Your task to perform on an android device: Clear the cart on target.com. Add "logitech g pro" to the cart on target.com Image 0: 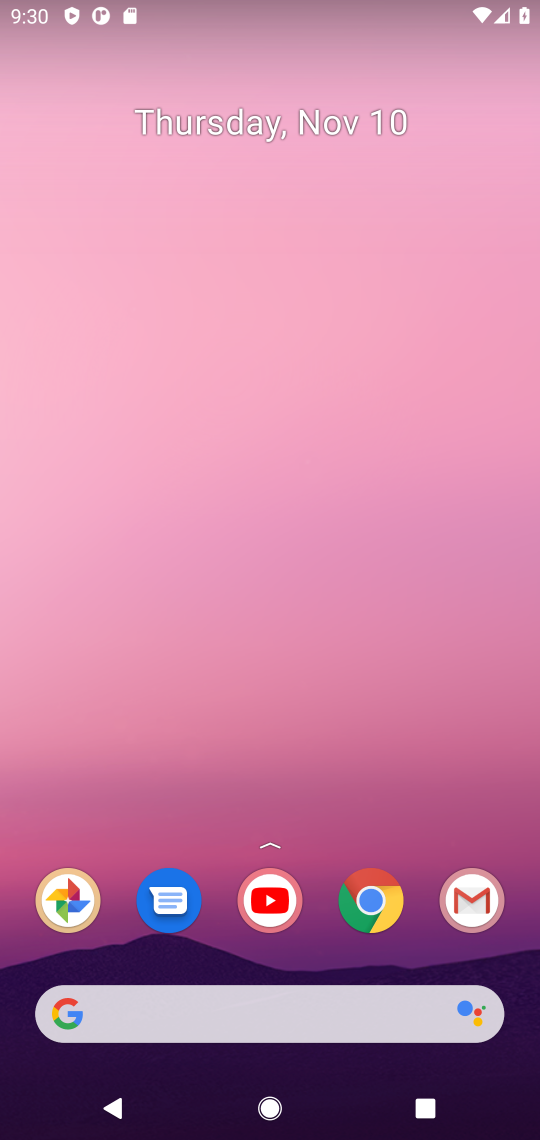
Step 0: click (367, 902)
Your task to perform on an android device: Clear the cart on target.com. Add "logitech g pro" to the cart on target.com Image 1: 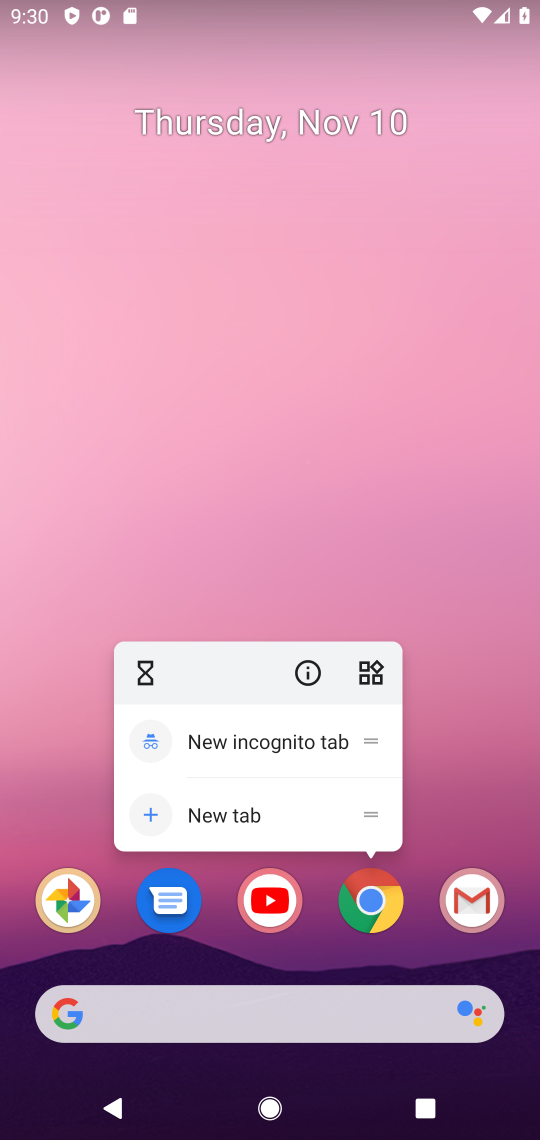
Step 1: click (369, 890)
Your task to perform on an android device: Clear the cart on target.com. Add "logitech g pro" to the cart on target.com Image 2: 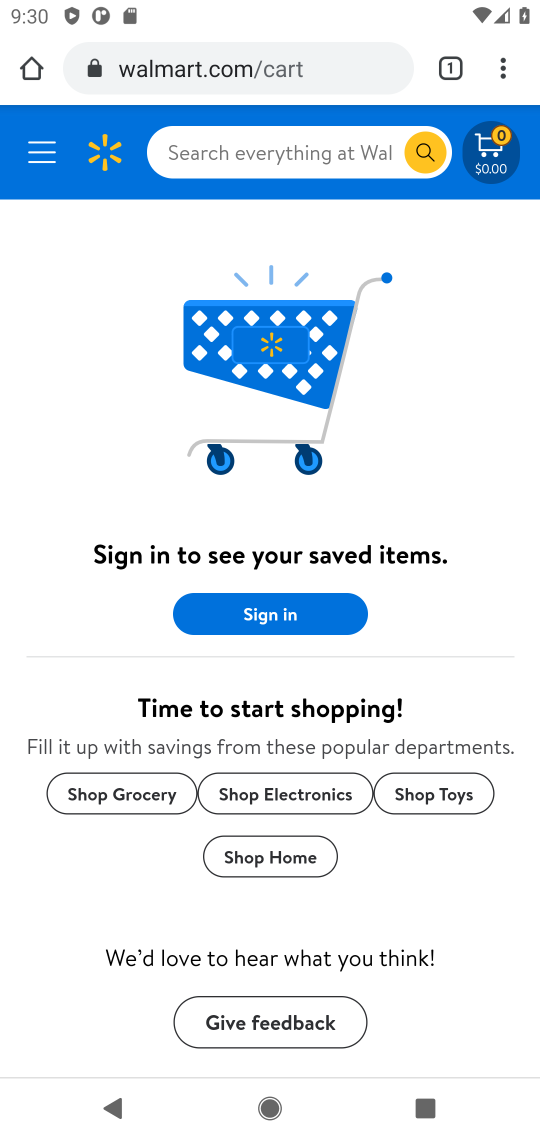
Step 2: click (350, 67)
Your task to perform on an android device: Clear the cart on target.com. Add "logitech g pro" to the cart on target.com Image 3: 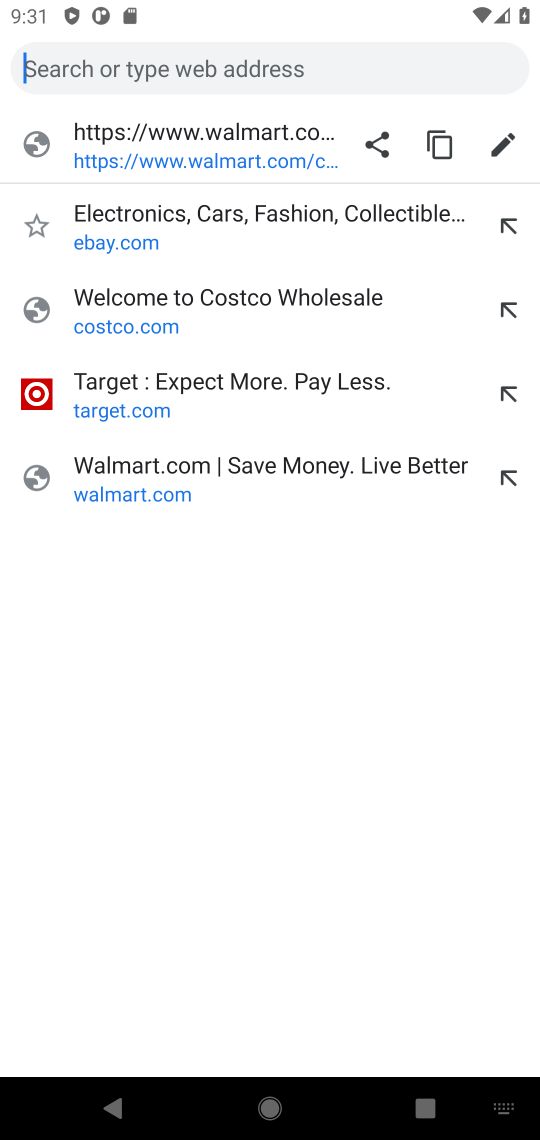
Step 3: click (93, 401)
Your task to perform on an android device: Clear the cart on target.com. Add "logitech g pro" to the cart on target.com Image 4: 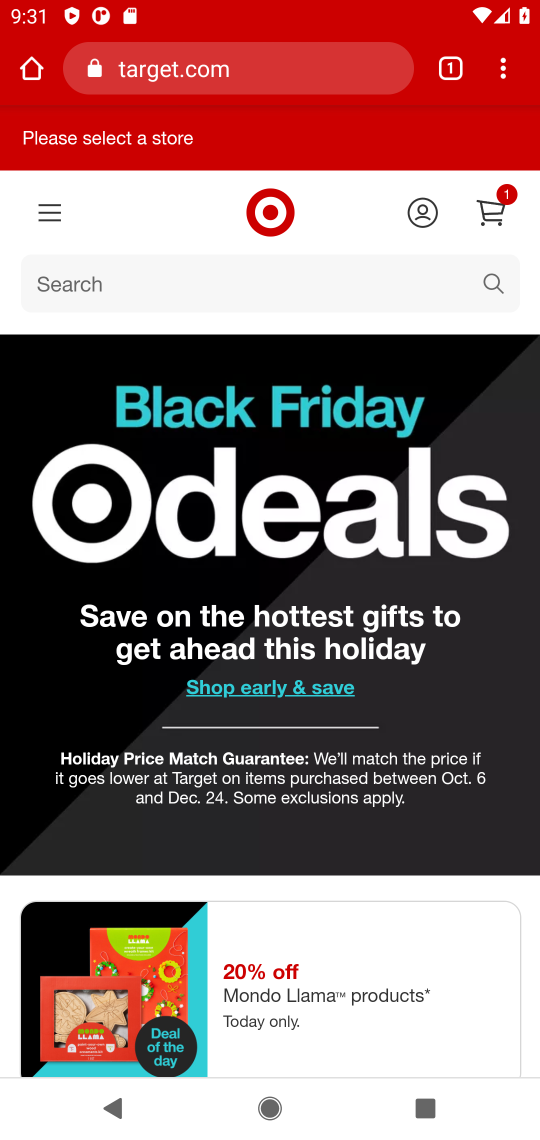
Step 4: press enter
Your task to perform on an android device: Clear the cart on target.com. Add "logitech g pro" to the cart on target.com Image 5: 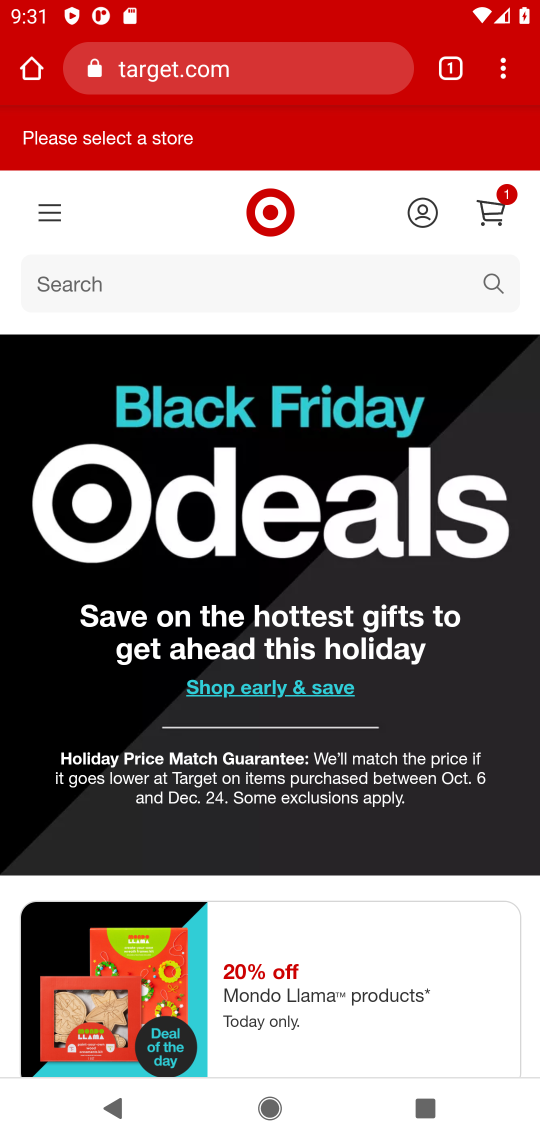
Step 5: type "logitech g pro"
Your task to perform on an android device: Clear the cart on target.com. Add "logitech g pro" to the cart on target.com Image 6: 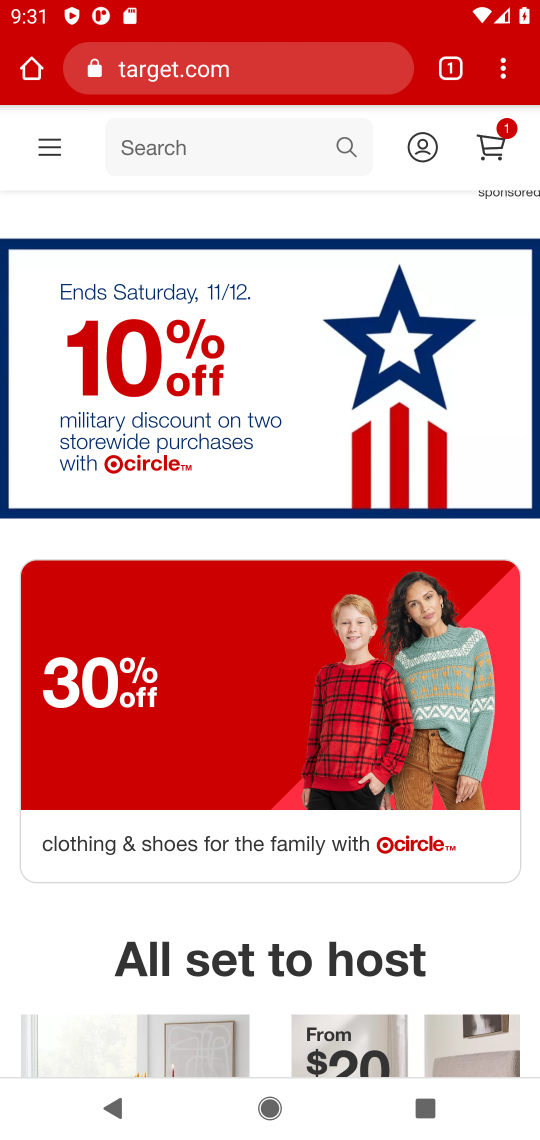
Step 6: click (198, 149)
Your task to perform on an android device: Clear the cart on target.com. Add "logitech g pro" to the cart on target.com Image 7: 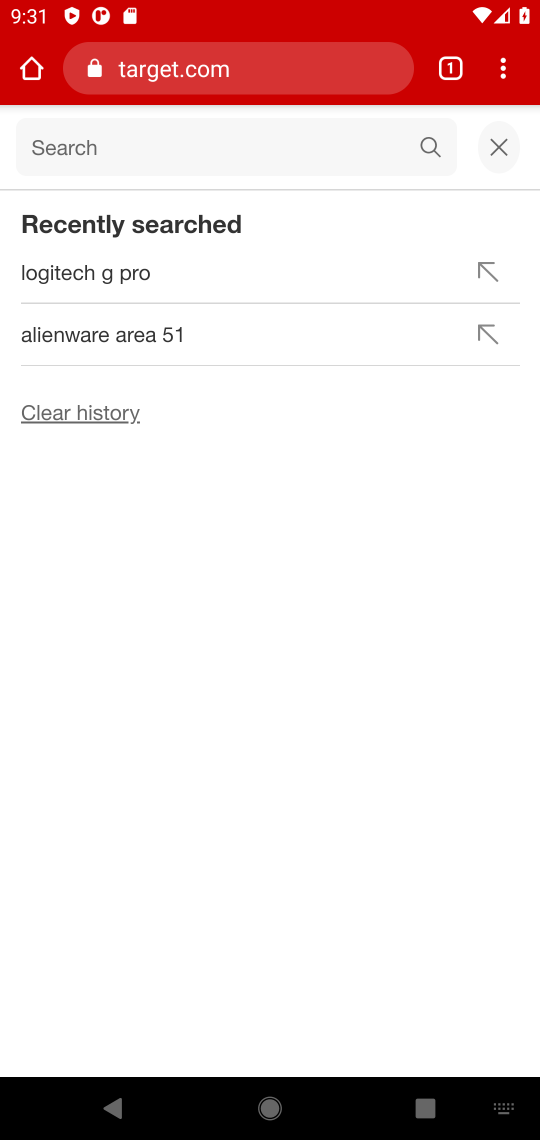
Step 7: type "logitech g pro"
Your task to perform on an android device: Clear the cart on target.com. Add "logitech g pro" to the cart on target.com Image 8: 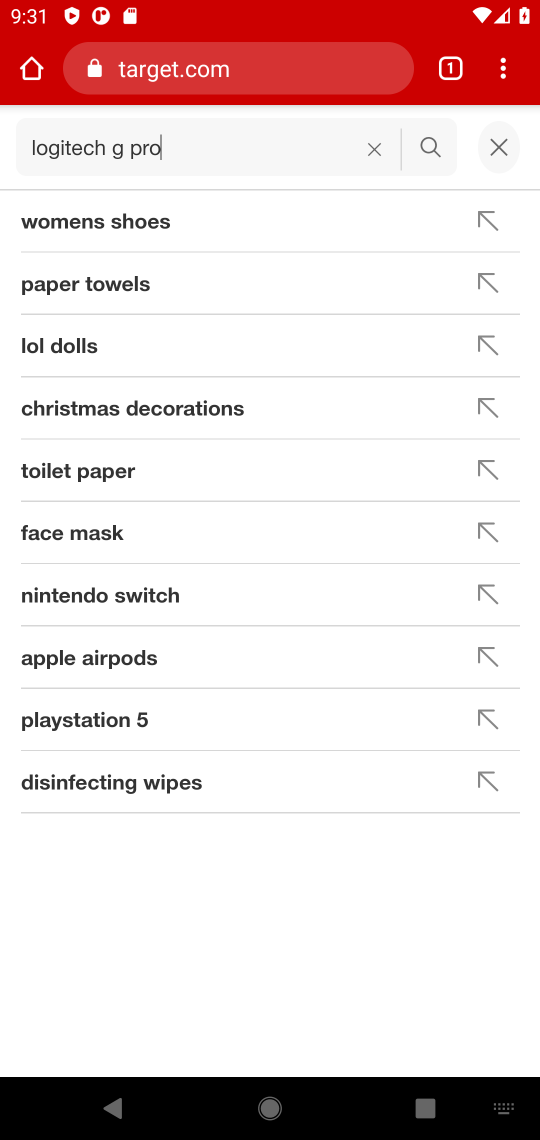
Step 8: press enter
Your task to perform on an android device: Clear the cart on target.com. Add "logitech g pro" to the cart on target.com Image 9: 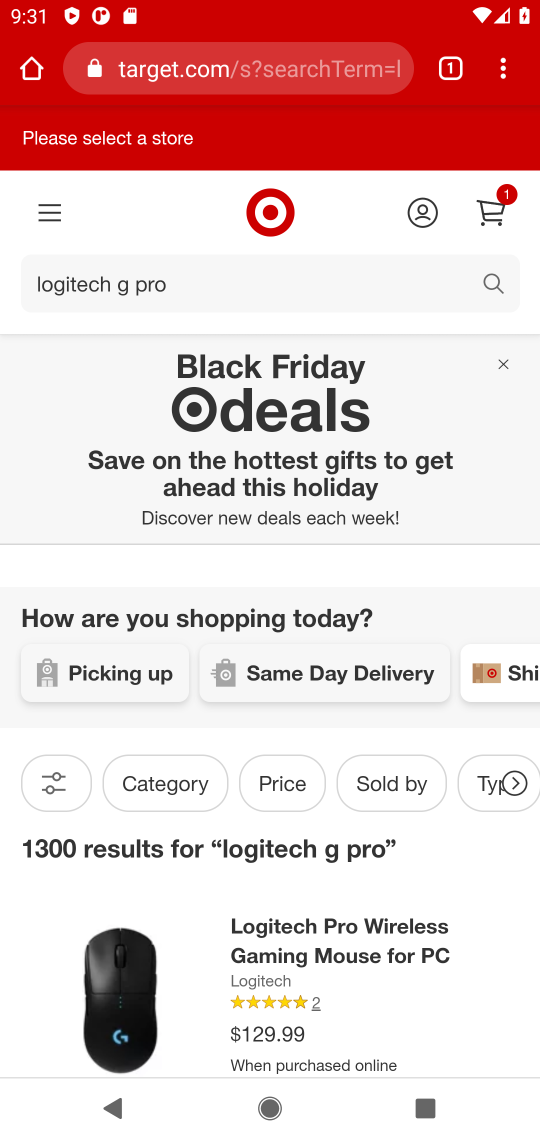
Step 9: task complete